Your task to perform on an android device: Clear the shopping cart on costco. Add "bose quietcomfort 35" to the cart on costco, then select checkout. Image 0: 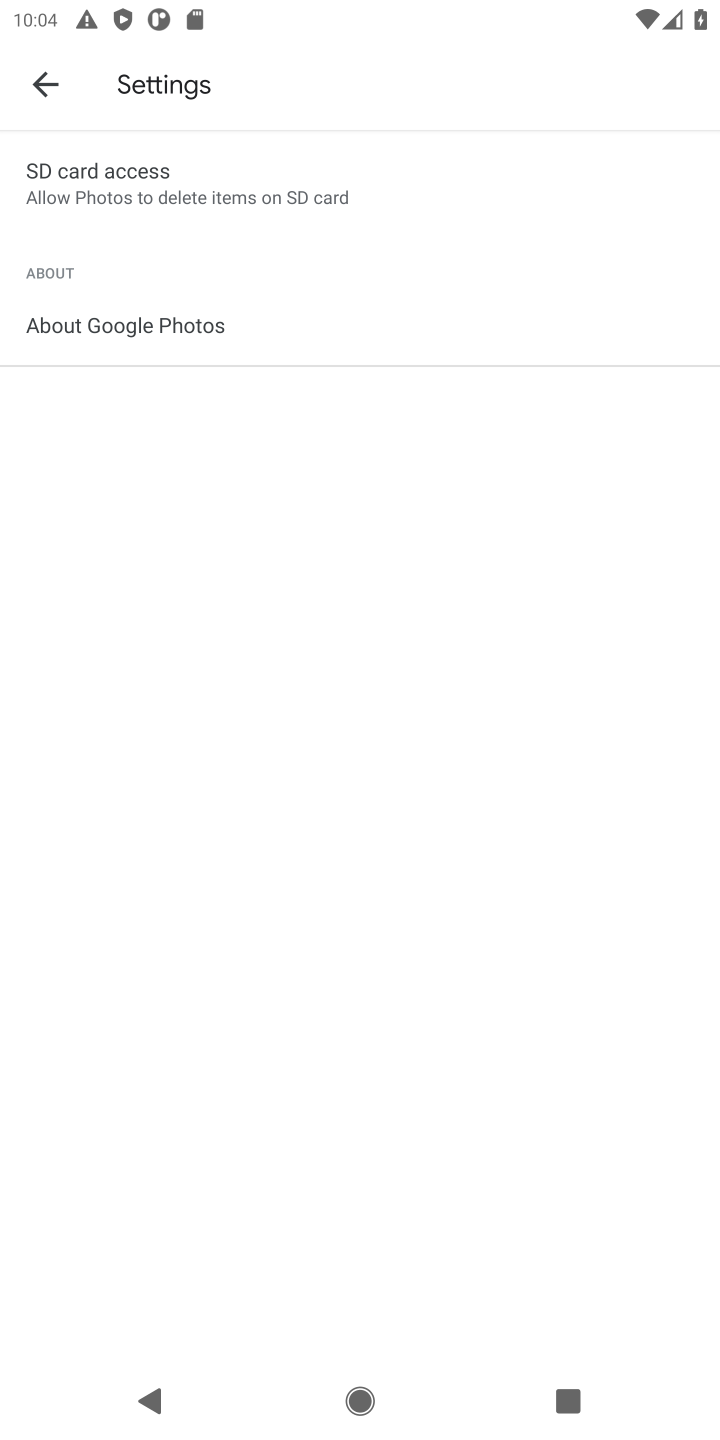
Step 0: press home button
Your task to perform on an android device: Clear the shopping cart on costco. Add "bose quietcomfort 35" to the cart on costco, then select checkout. Image 1: 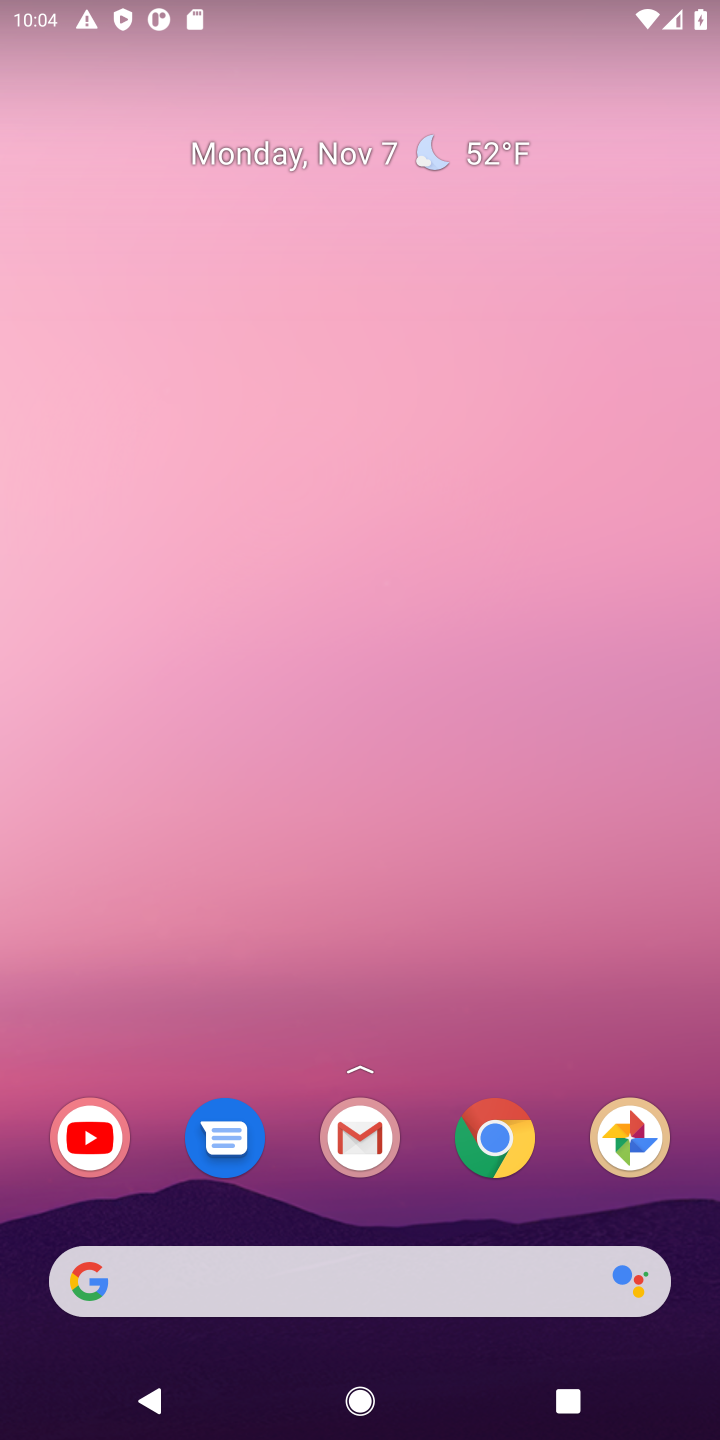
Step 1: click (495, 1129)
Your task to perform on an android device: Clear the shopping cart on costco. Add "bose quietcomfort 35" to the cart on costco, then select checkout. Image 2: 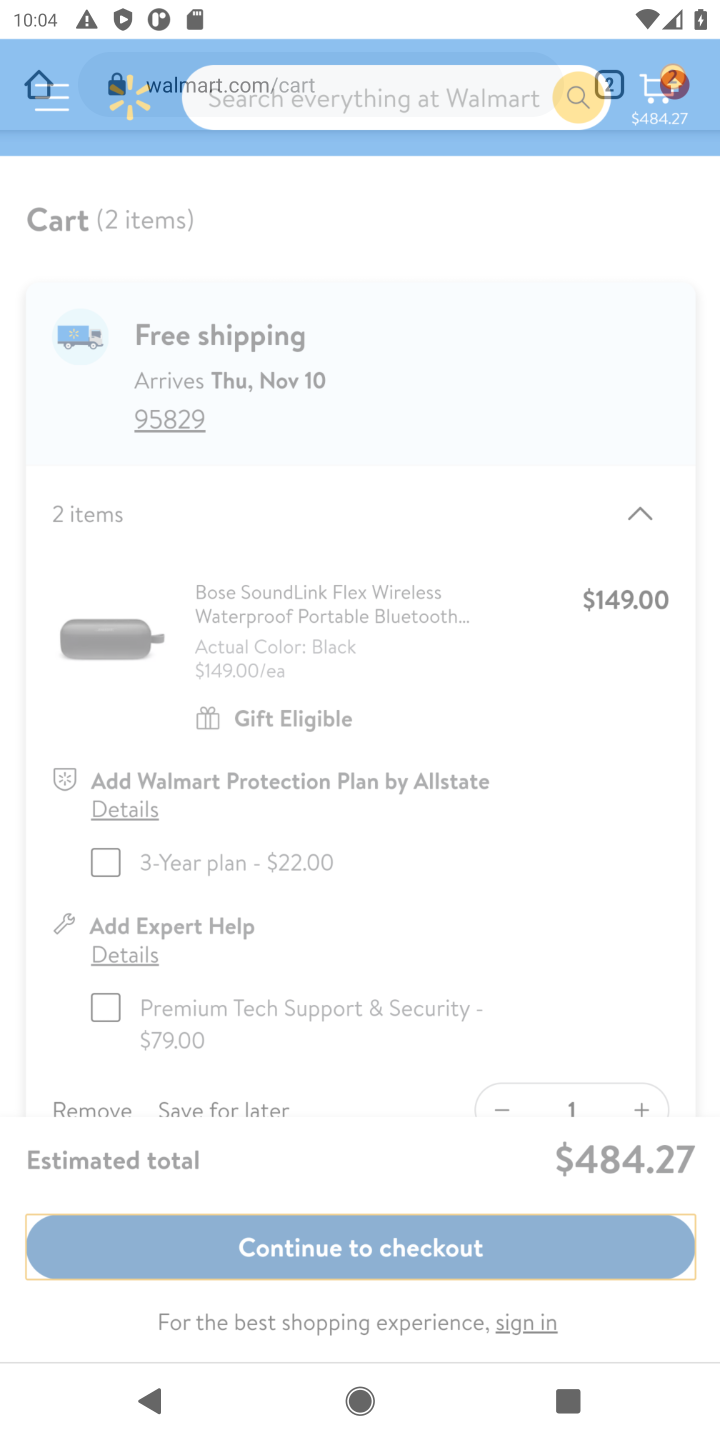
Step 2: click (271, 102)
Your task to perform on an android device: Clear the shopping cart on costco. Add "bose quietcomfort 35" to the cart on costco, then select checkout. Image 3: 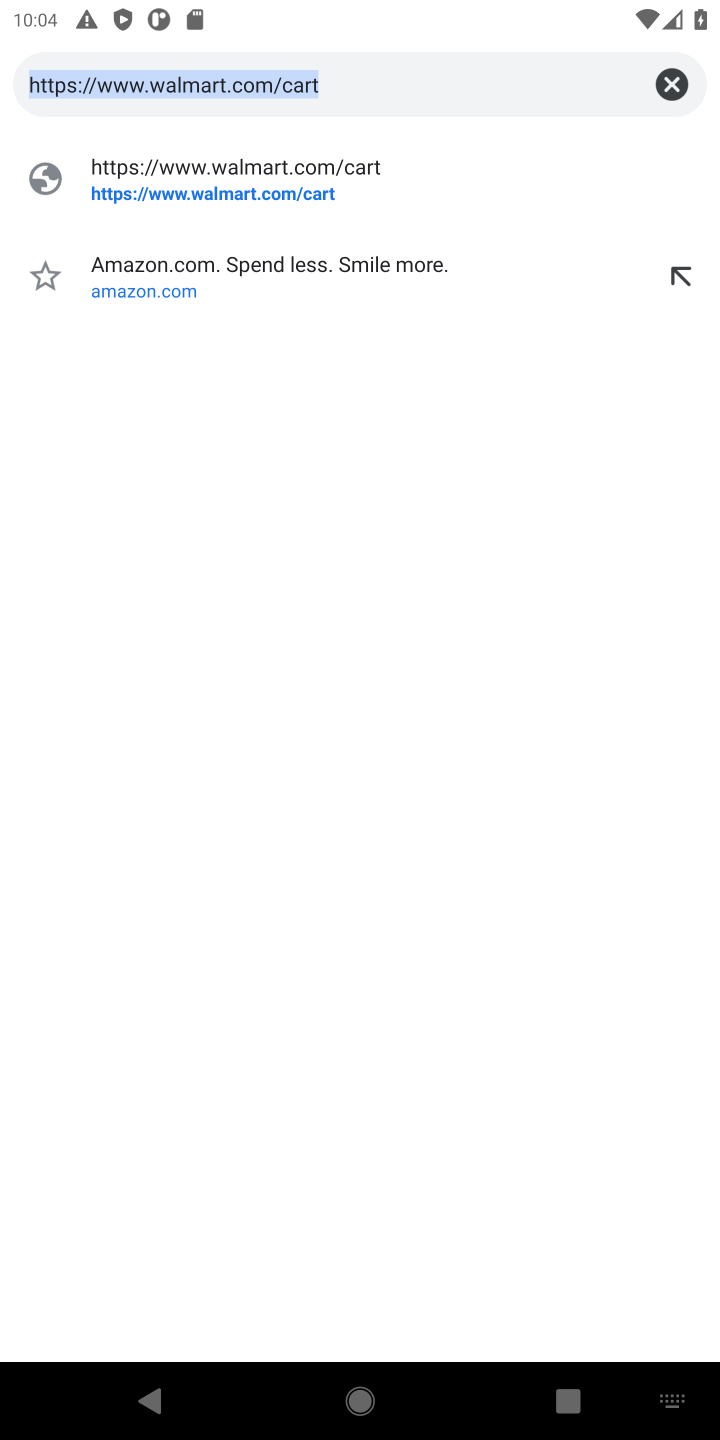
Step 3: click (670, 80)
Your task to perform on an android device: Clear the shopping cart on costco. Add "bose quietcomfort 35" to the cart on costco, then select checkout. Image 4: 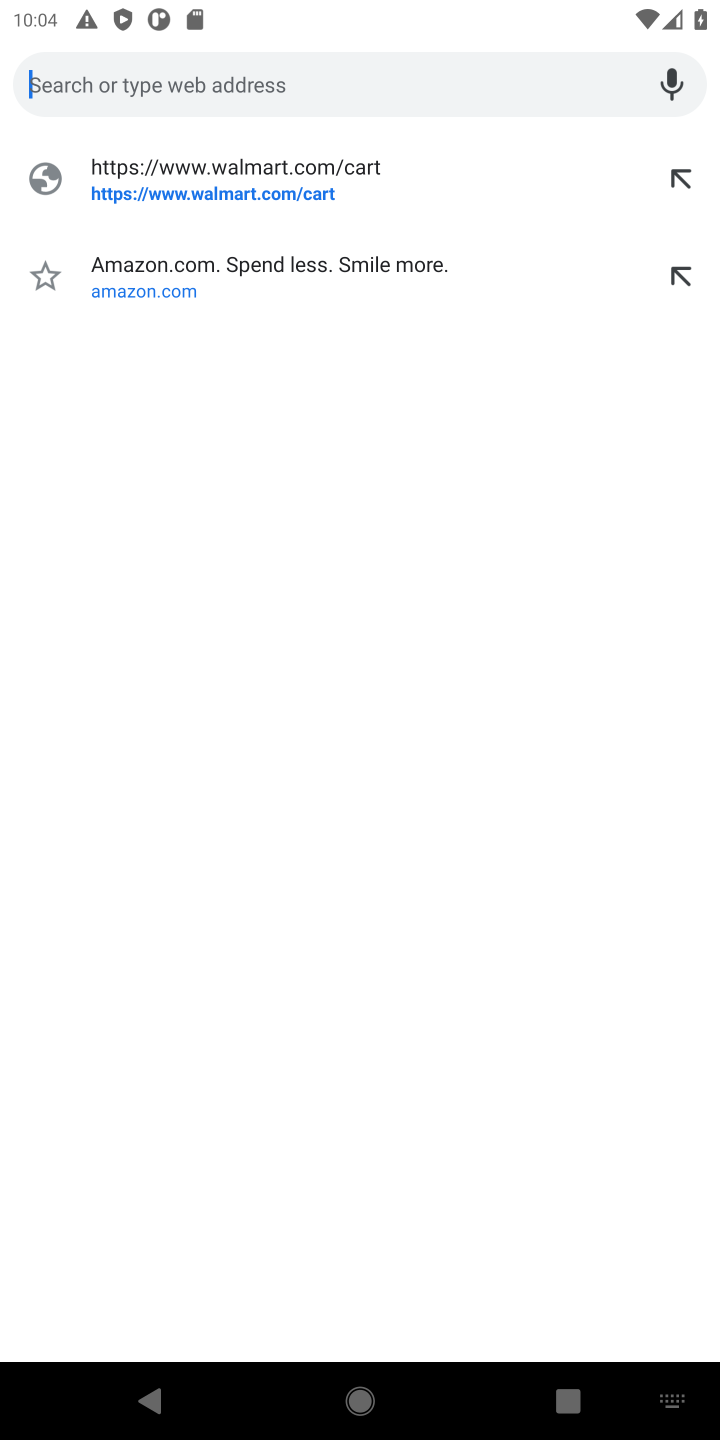
Step 4: type "costco"
Your task to perform on an android device: Clear the shopping cart on costco. Add "bose quietcomfort 35" to the cart on costco, then select checkout. Image 5: 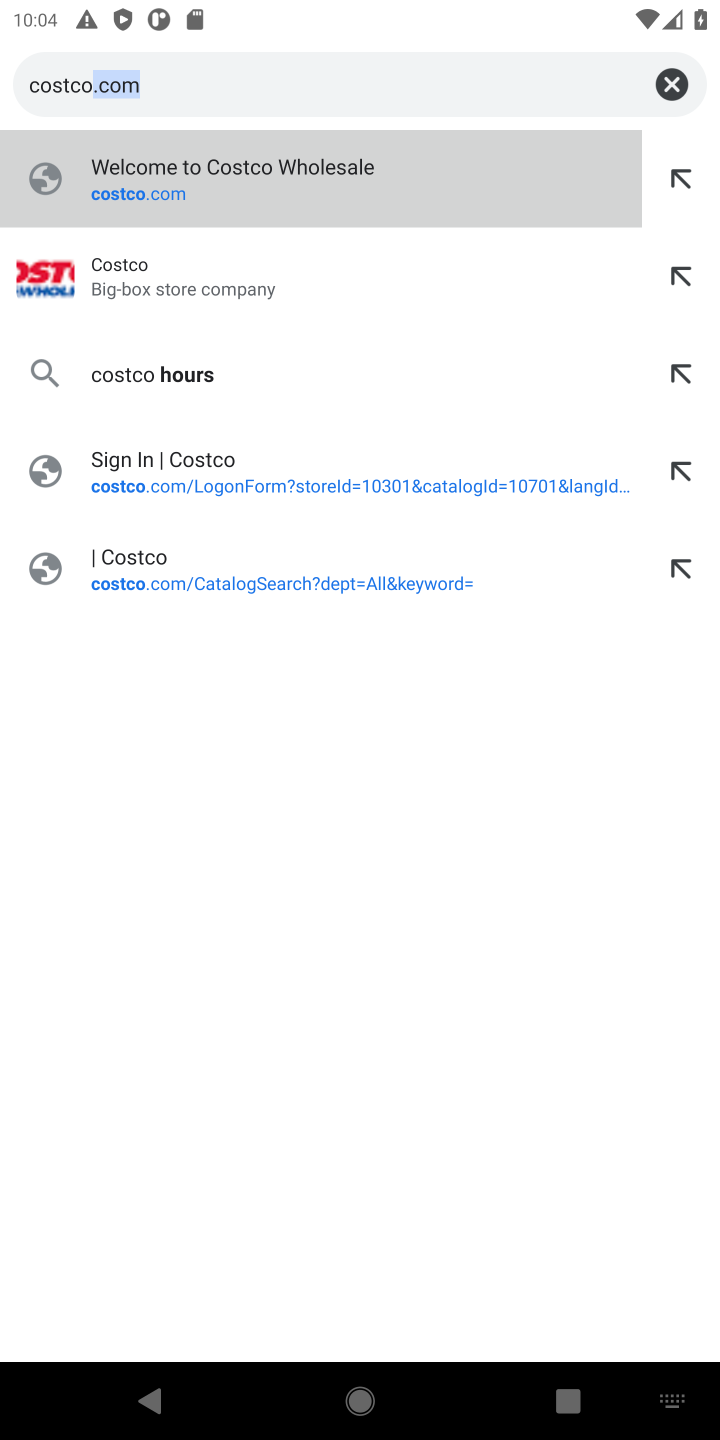
Step 5: type ""
Your task to perform on an android device: Clear the shopping cart on costco. Add "bose quietcomfort 35" to the cart on costco, then select checkout. Image 6: 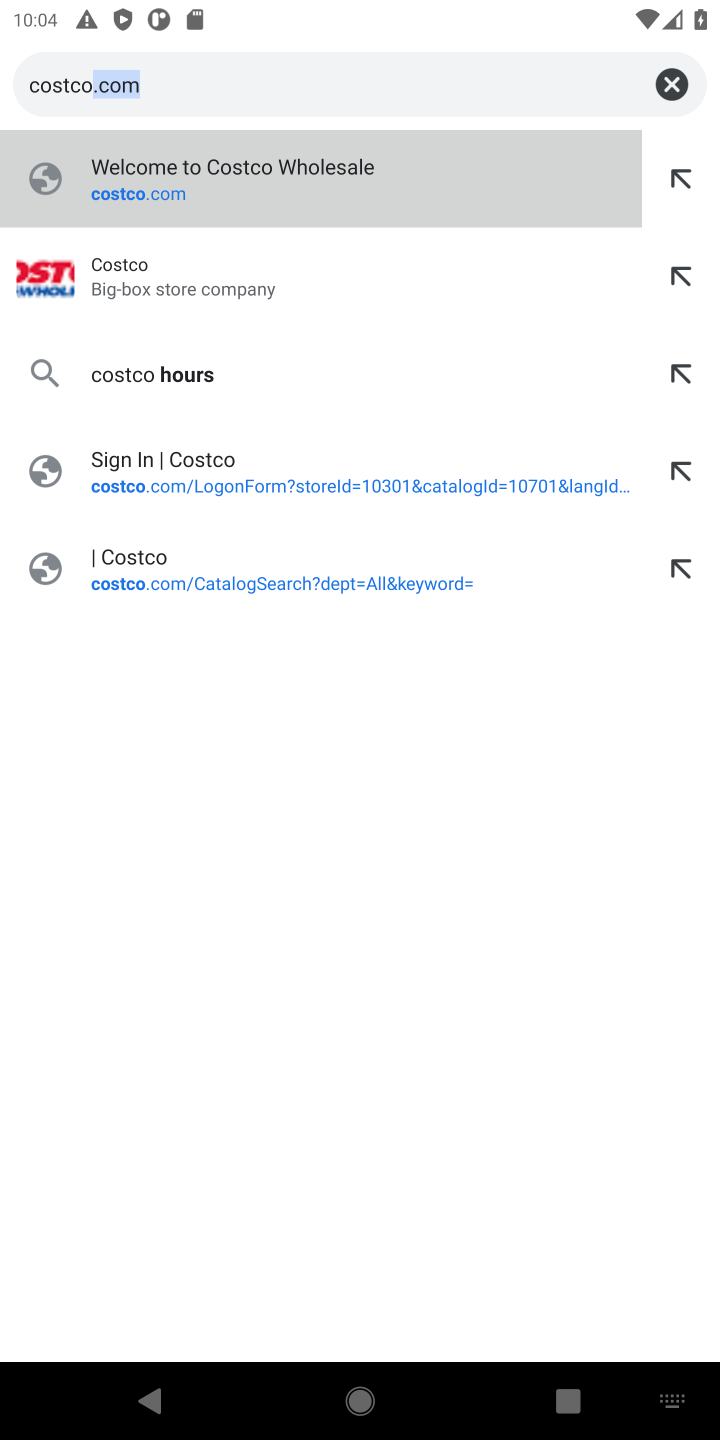
Step 6: click (117, 283)
Your task to perform on an android device: Clear the shopping cart on costco. Add "bose quietcomfort 35" to the cart on costco, then select checkout. Image 7: 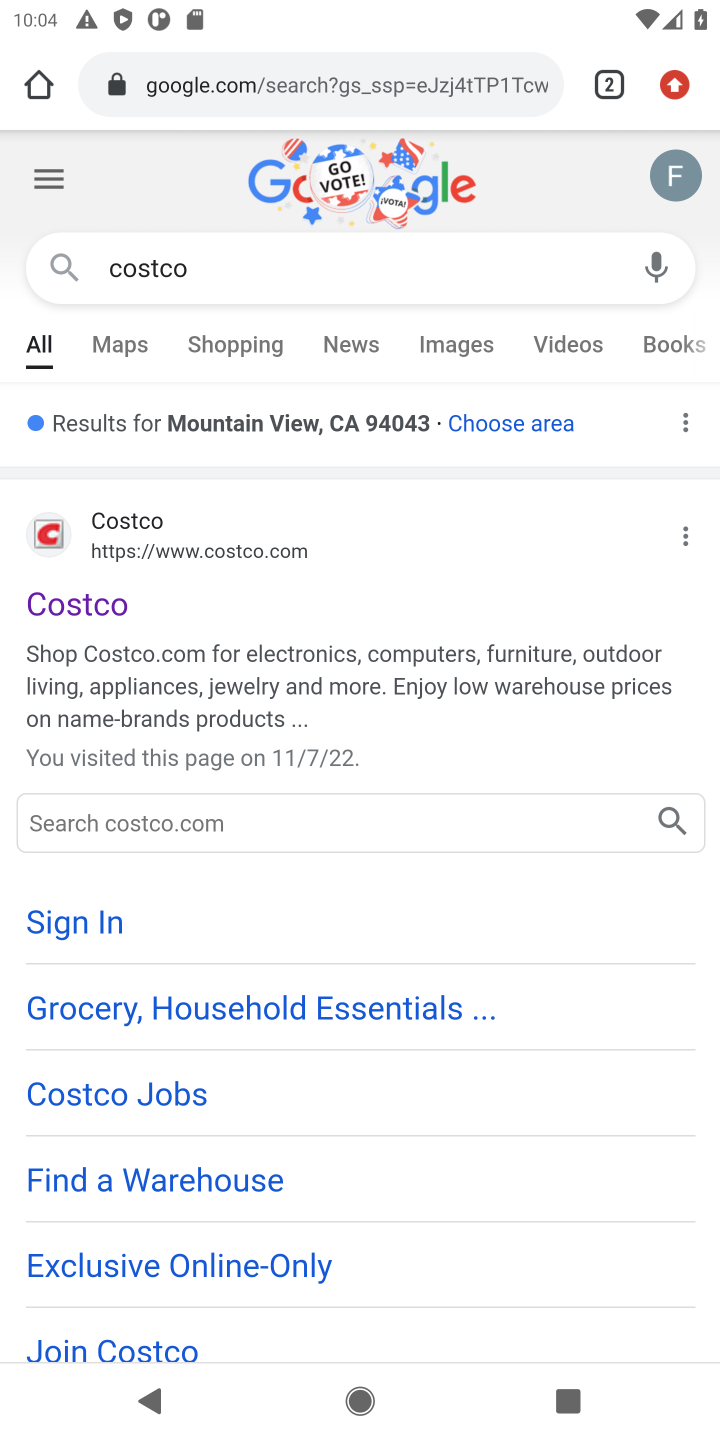
Step 7: click (79, 612)
Your task to perform on an android device: Clear the shopping cart on costco. Add "bose quietcomfort 35" to the cart on costco, then select checkout. Image 8: 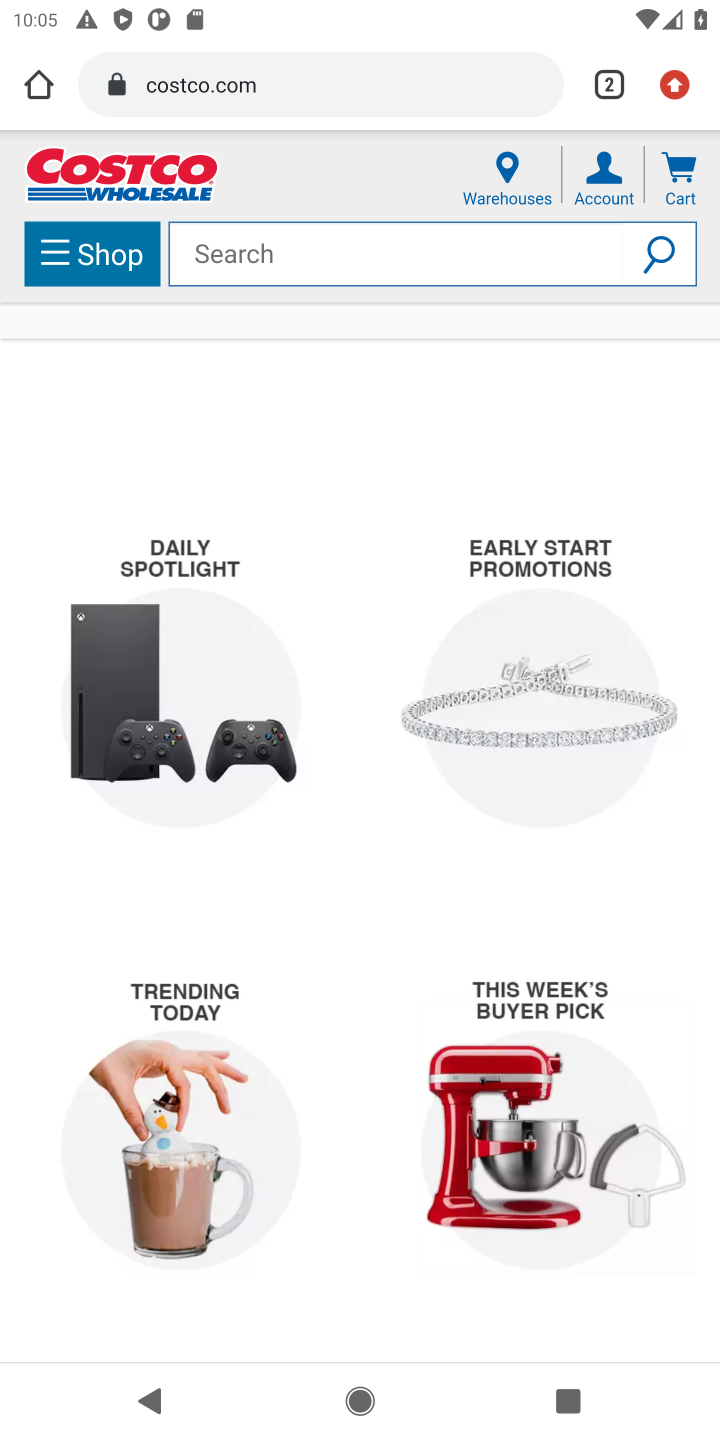
Step 8: click (220, 254)
Your task to perform on an android device: Clear the shopping cart on costco. Add "bose quietcomfort 35" to the cart on costco, then select checkout. Image 9: 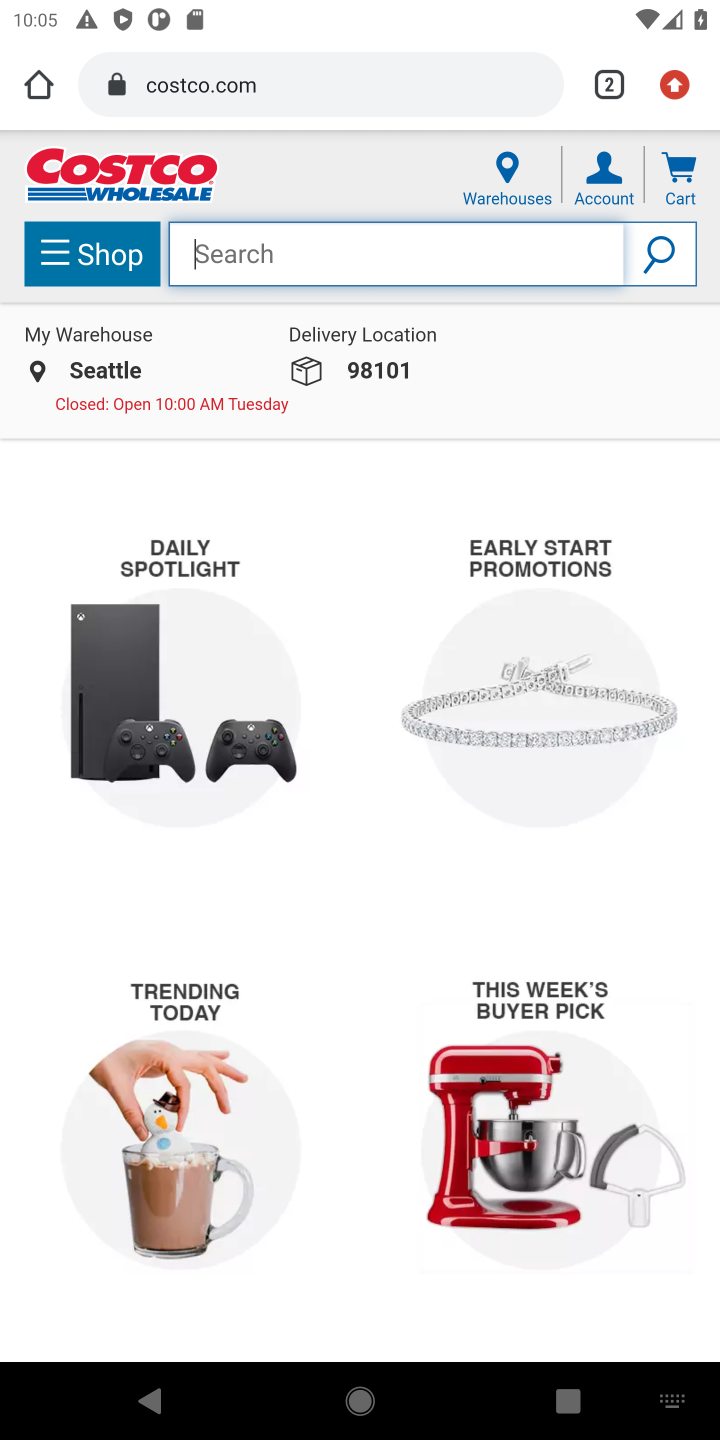
Step 9: type "bose quietcomfort "
Your task to perform on an android device: Clear the shopping cart on costco. Add "bose quietcomfort 35" to the cart on costco, then select checkout. Image 10: 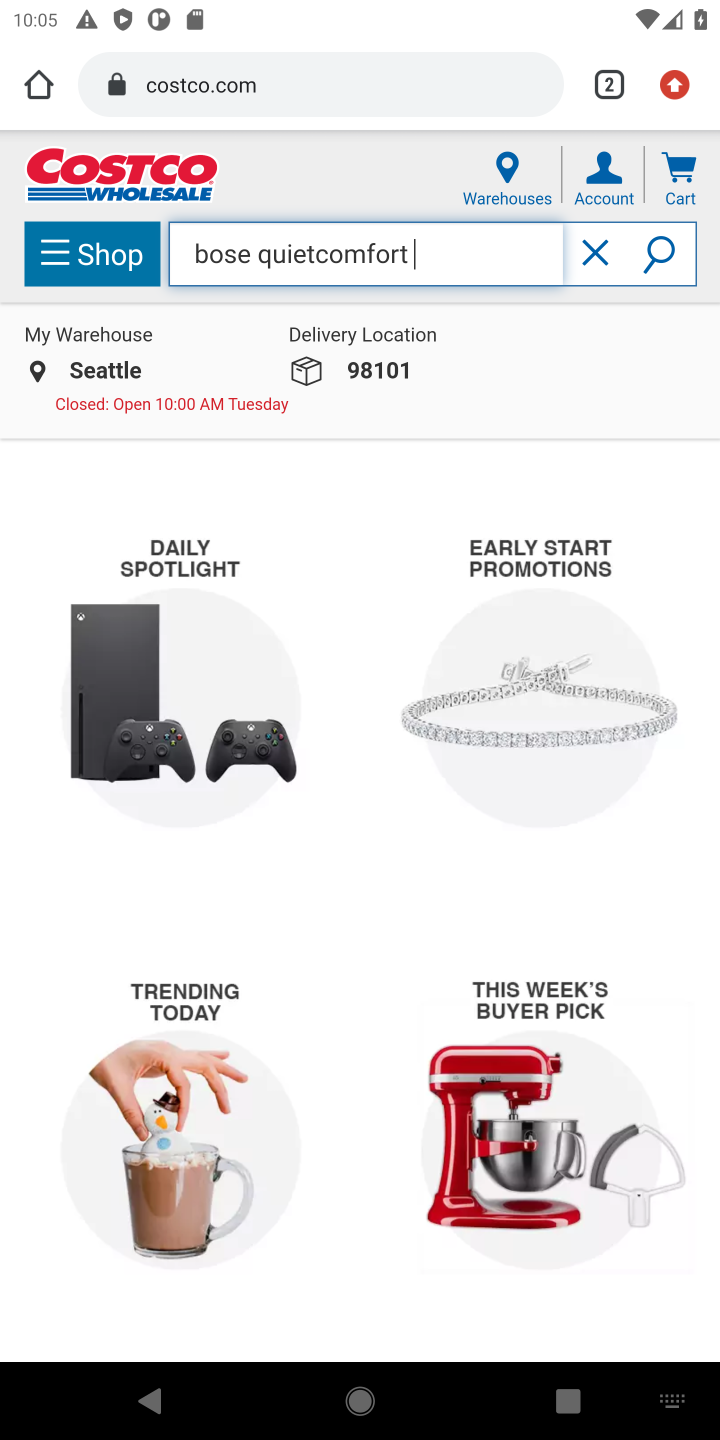
Step 10: type ""
Your task to perform on an android device: Clear the shopping cart on costco. Add "bose quietcomfort 35" to the cart on costco, then select checkout. Image 11: 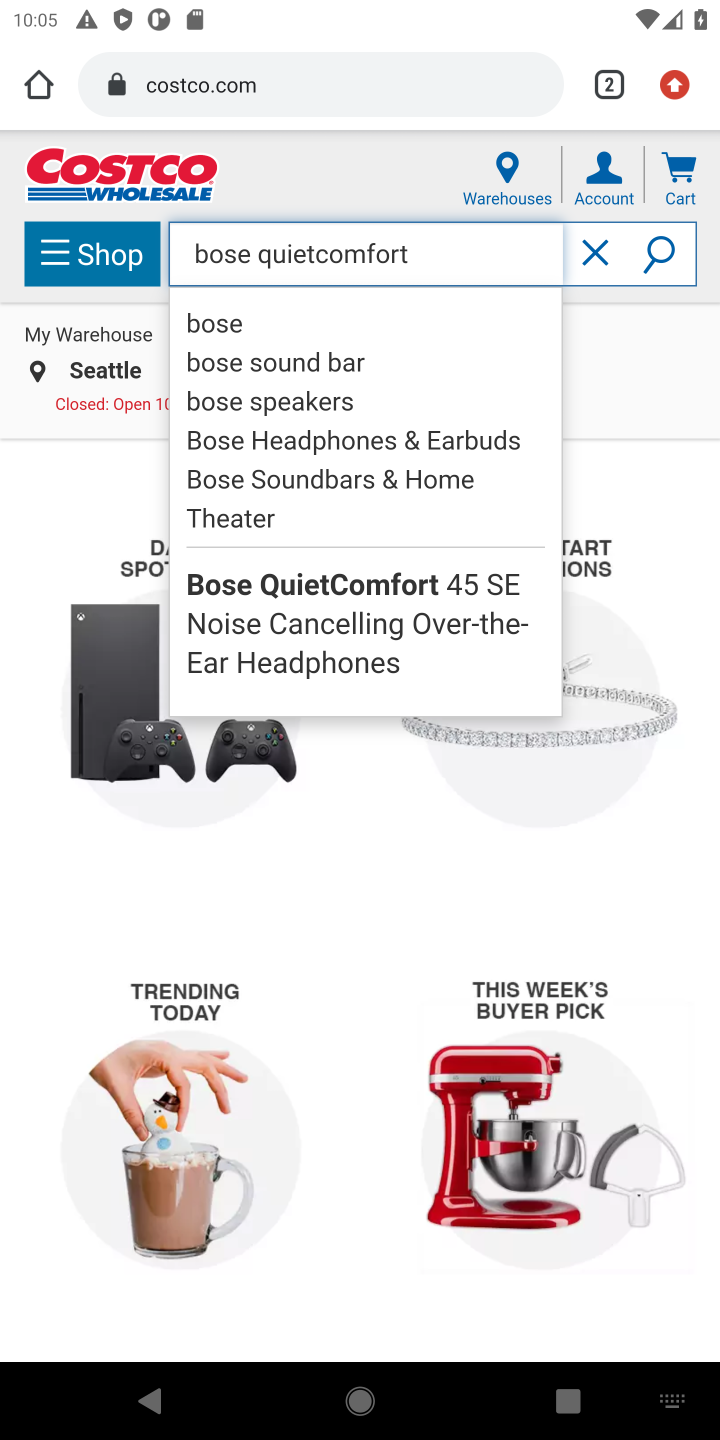
Step 11: click (298, 606)
Your task to perform on an android device: Clear the shopping cart on costco. Add "bose quietcomfort 35" to the cart on costco, then select checkout. Image 12: 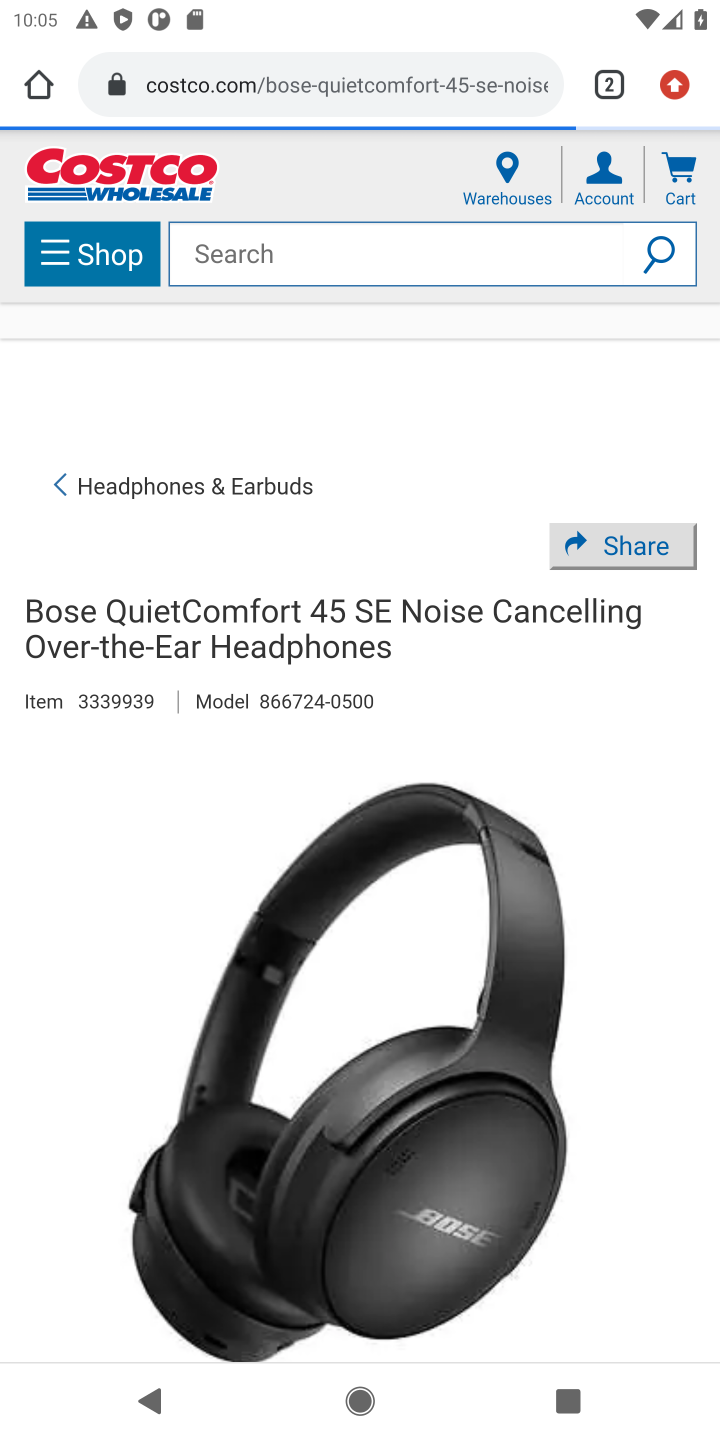
Step 12: drag from (202, 967) to (380, 490)
Your task to perform on an android device: Clear the shopping cart on costco. Add "bose quietcomfort 35" to the cart on costco, then select checkout. Image 13: 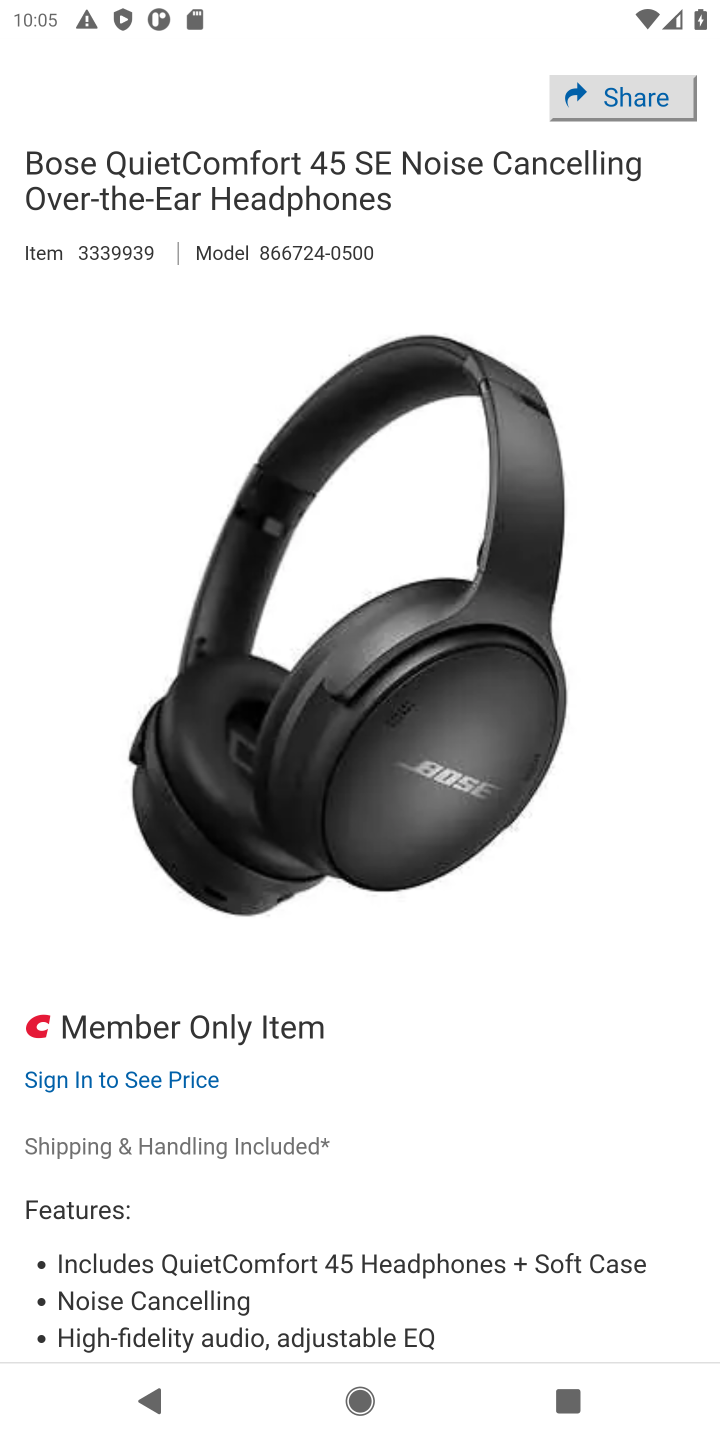
Step 13: drag from (387, 995) to (519, 582)
Your task to perform on an android device: Clear the shopping cart on costco. Add "bose quietcomfort 35" to the cart on costco, then select checkout. Image 14: 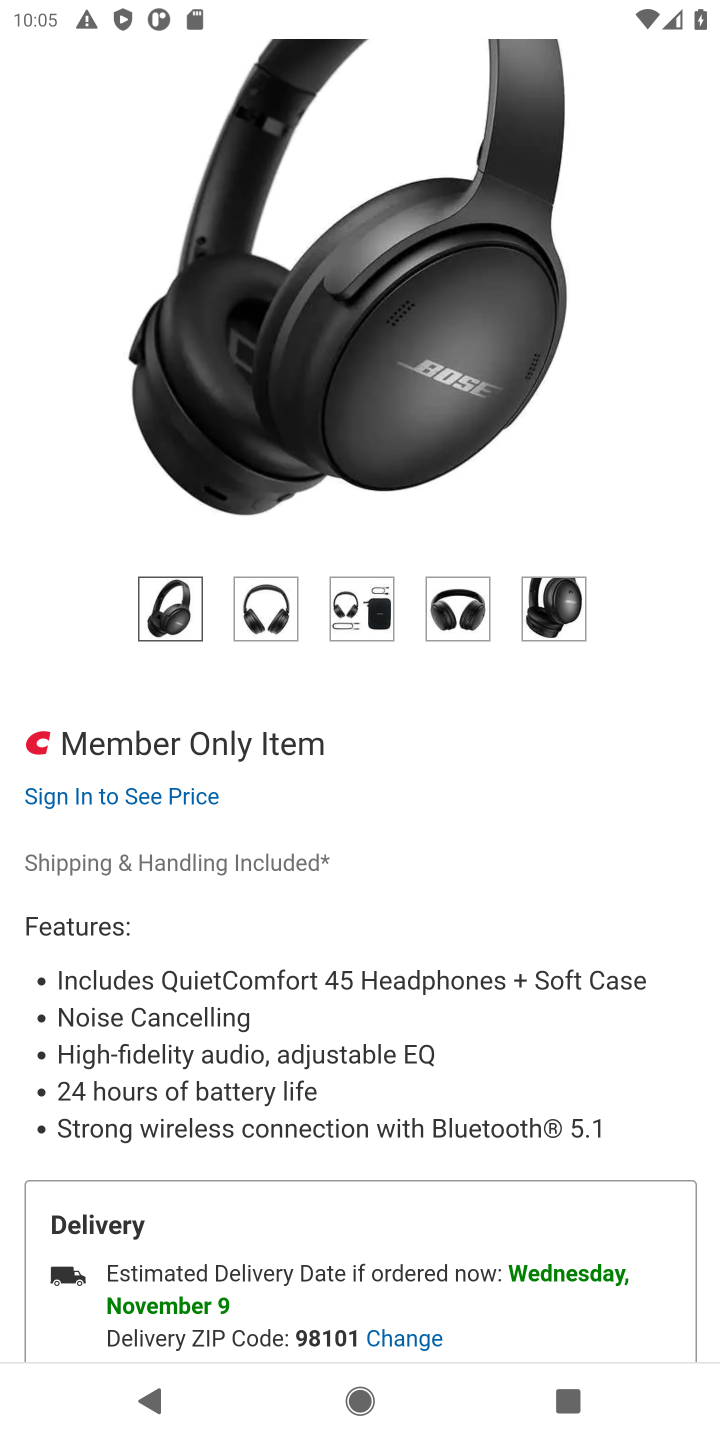
Step 14: drag from (283, 1075) to (404, 534)
Your task to perform on an android device: Clear the shopping cart on costco. Add "bose quietcomfort 35" to the cart on costco, then select checkout. Image 15: 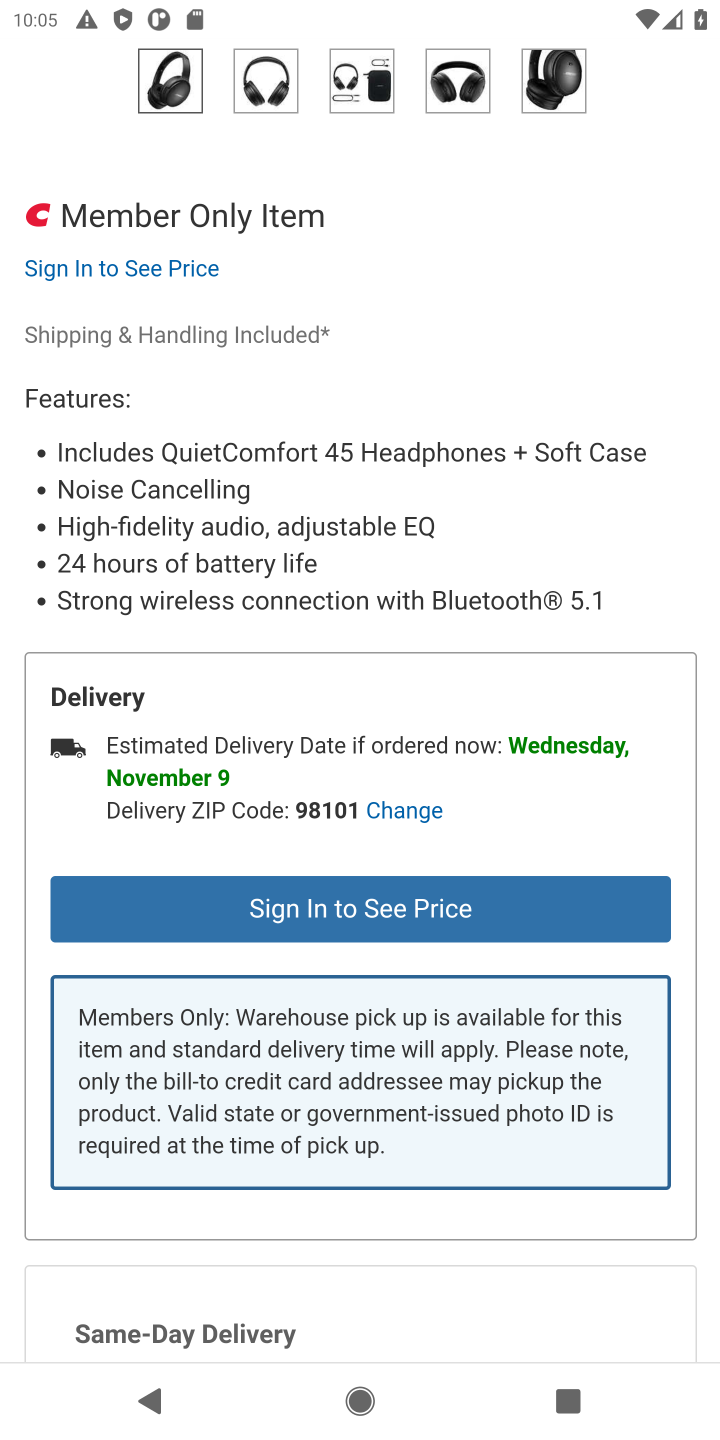
Step 15: drag from (397, 995) to (534, 167)
Your task to perform on an android device: Clear the shopping cart on costco. Add "bose quietcomfort 35" to the cart on costco, then select checkout. Image 16: 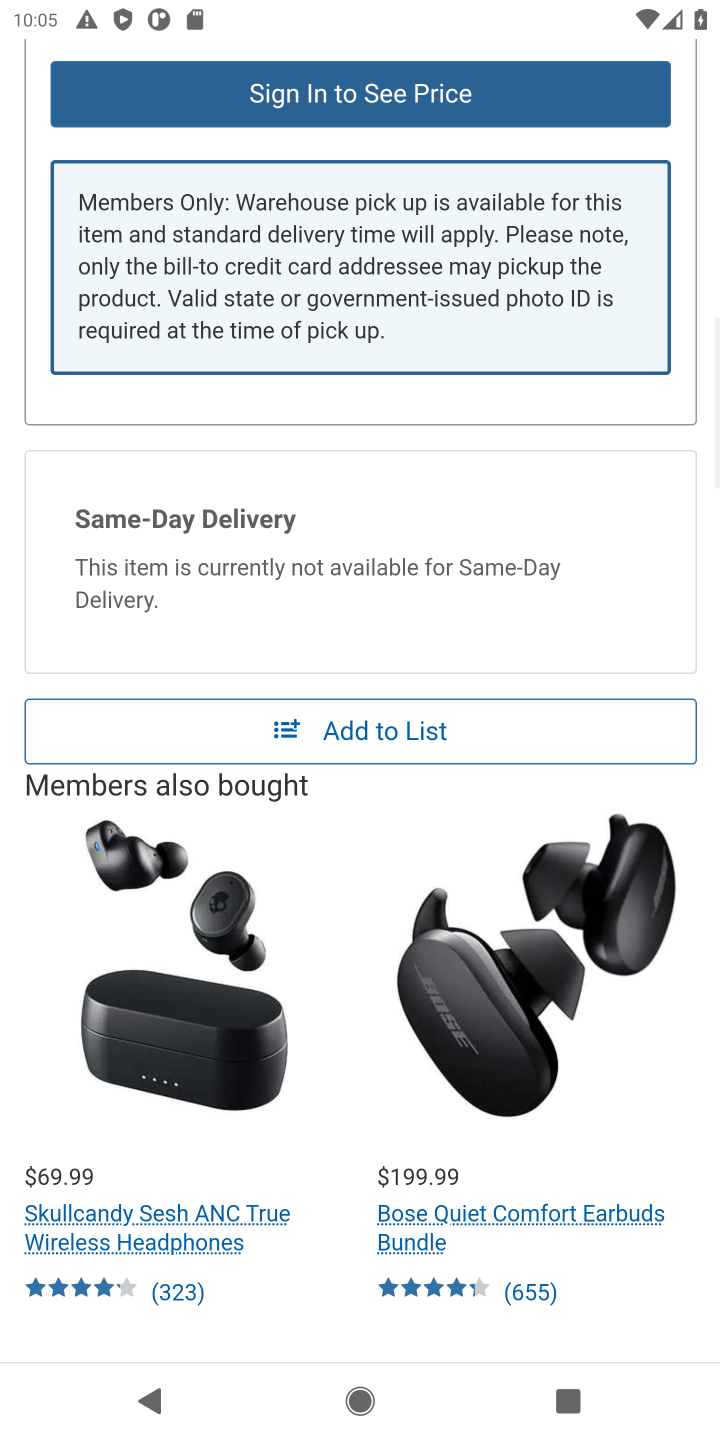
Step 16: click (426, 742)
Your task to perform on an android device: Clear the shopping cart on costco. Add "bose quietcomfort 35" to the cart on costco, then select checkout. Image 17: 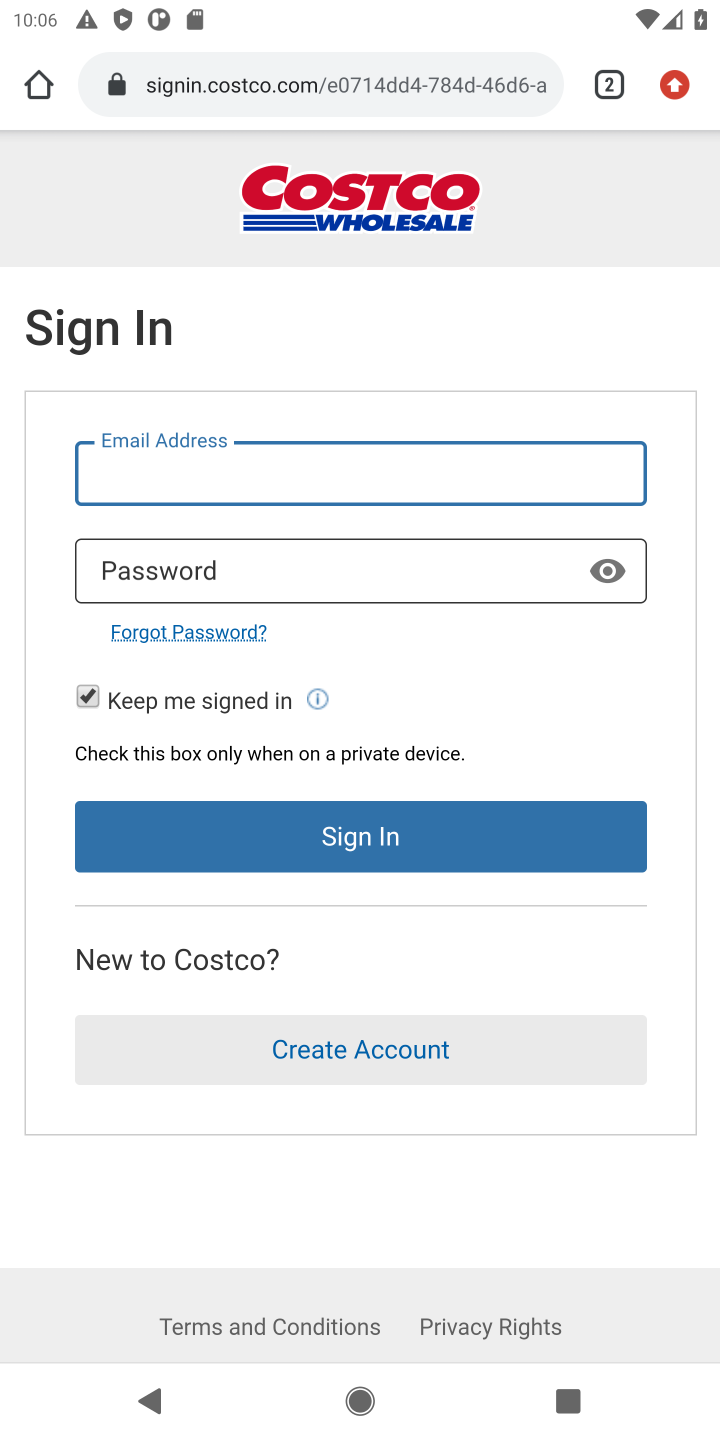
Step 17: task complete